Your task to perform on an android device: Open sound settings Image 0: 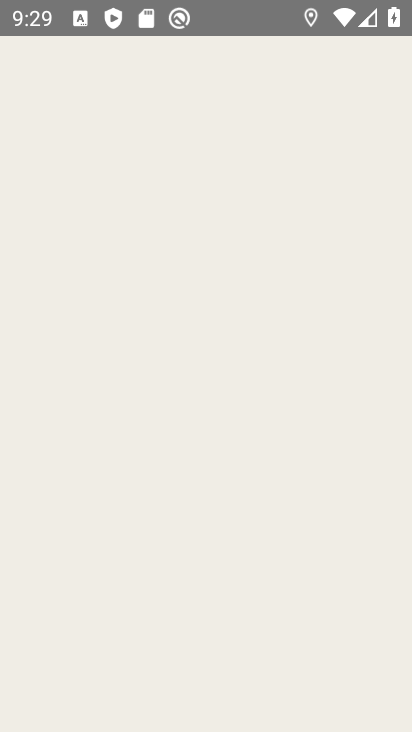
Step 0: drag from (209, 70) to (222, 19)
Your task to perform on an android device: Open sound settings Image 1: 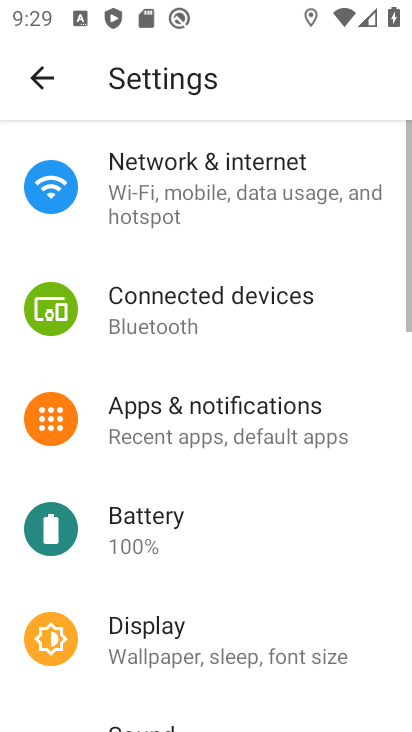
Step 1: drag from (317, 614) to (282, 73)
Your task to perform on an android device: Open sound settings Image 2: 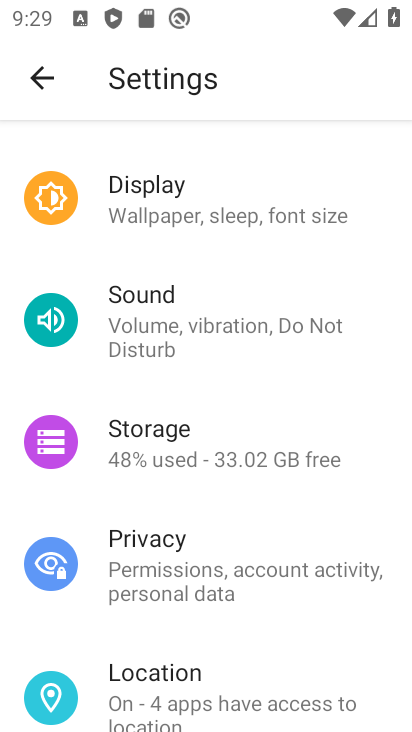
Step 2: click (259, 309)
Your task to perform on an android device: Open sound settings Image 3: 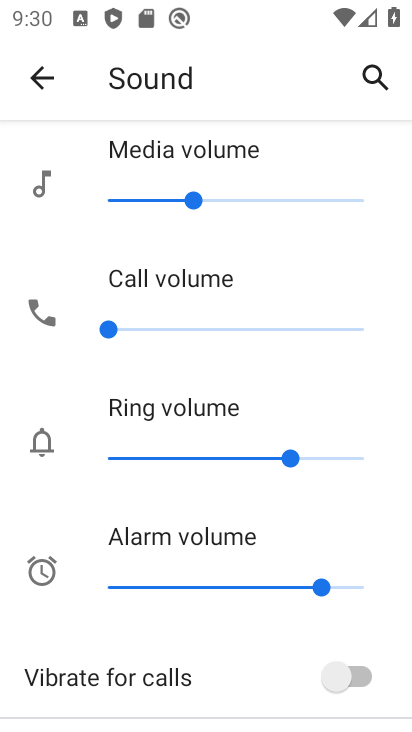
Step 3: task complete